Your task to perform on an android device: Search for Mexican restaurants on Maps Image 0: 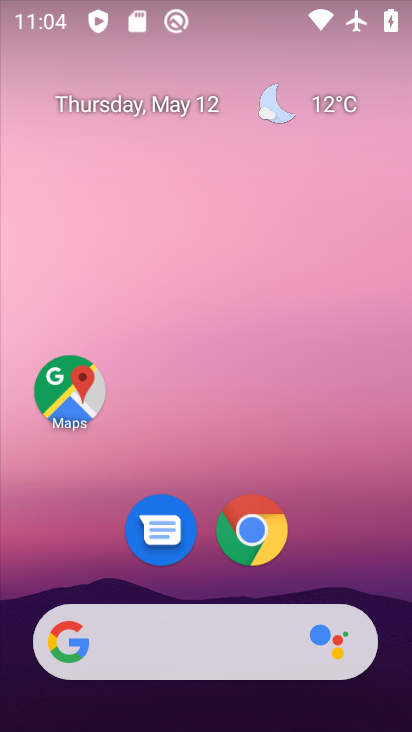
Step 0: click (84, 400)
Your task to perform on an android device: Search for Mexican restaurants on Maps Image 1: 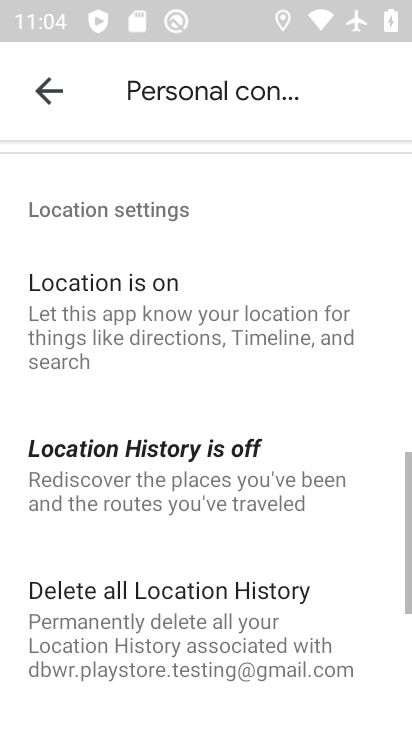
Step 1: click (54, 83)
Your task to perform on an android device: Search for Mexican restaurants on Maps Image 2: 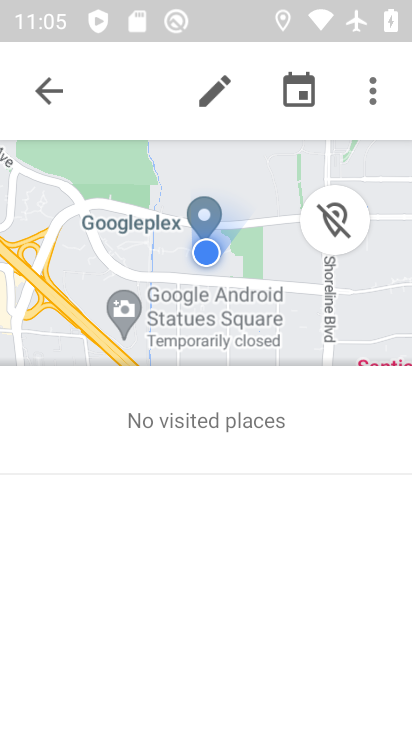
Step 2: click (108, 96)
Your task to perform on an android device: Search for Mexican restaurants on Maps Image 3: 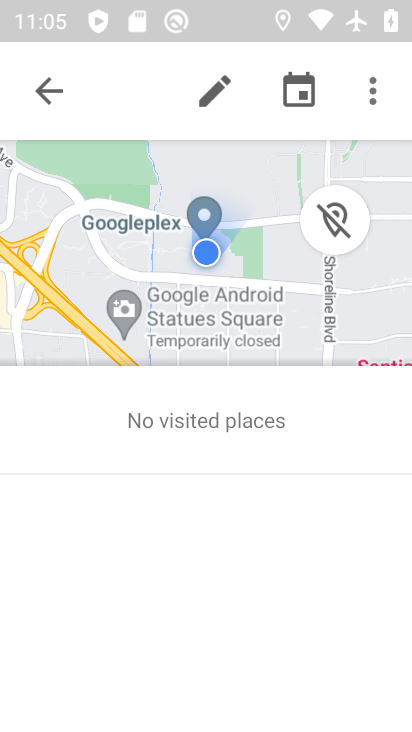
Step 3: click (70, 91)
Your task to perform on an android device: Search for Mexican restaurants on Maps Image 4: 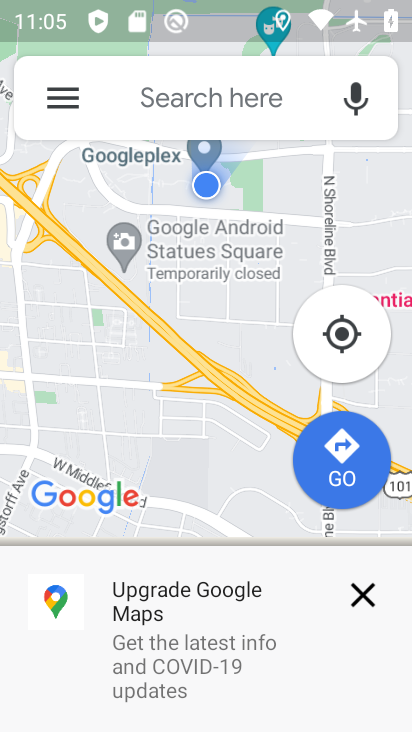
Step 4: click (253, 94)
Your task to perform on an android device: Search for Mexican restaurants on Maps Image 5: 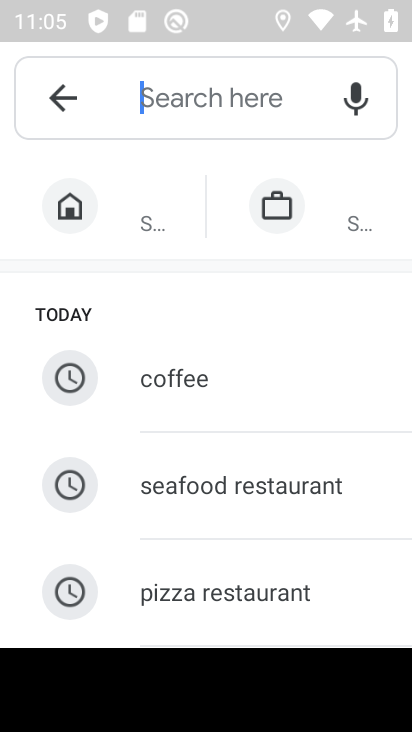
Step 5: drag from (236, 548) to (314, 240)
Your task to perform on an android device: Search for Mexican restaurants on Maps Image 6: 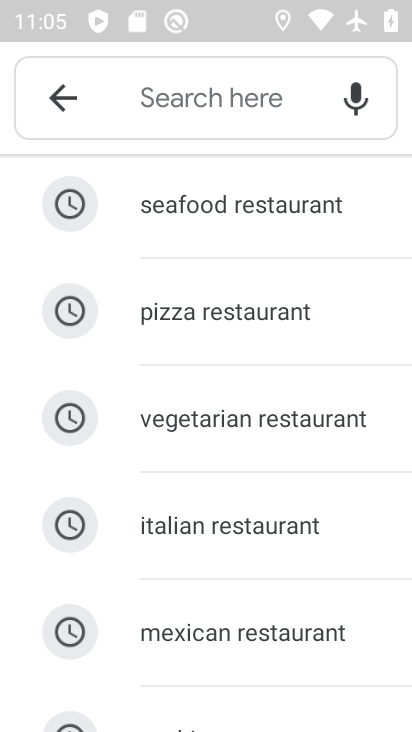
Step 6: click (194, 636)
Your task to perform on an android device: Search for Mexican restaurants on Maps Image 7: 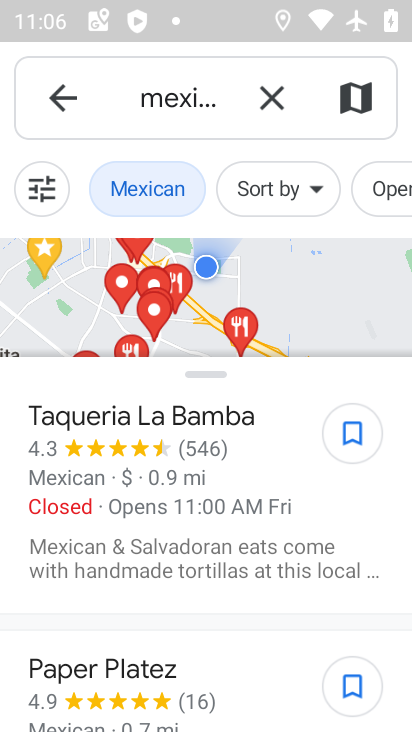
Step 7: task complete